Your task to perform on an android device: create a new album in the google photos Image 0: 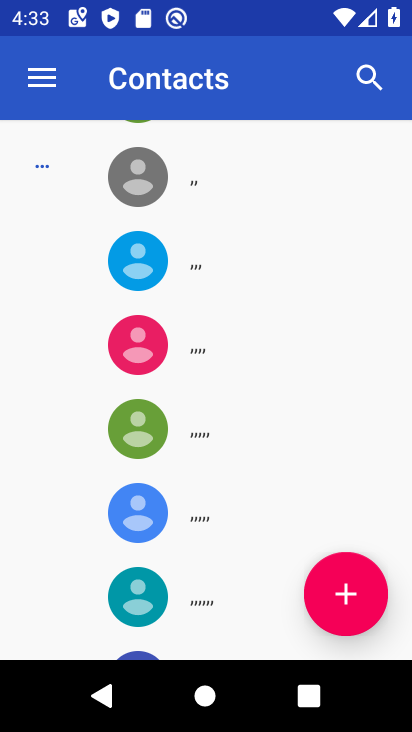
Step 0: drag from (202, 555) to (229, 231)
Your task to perform on an android device: create a new album in the google photos Image 1: 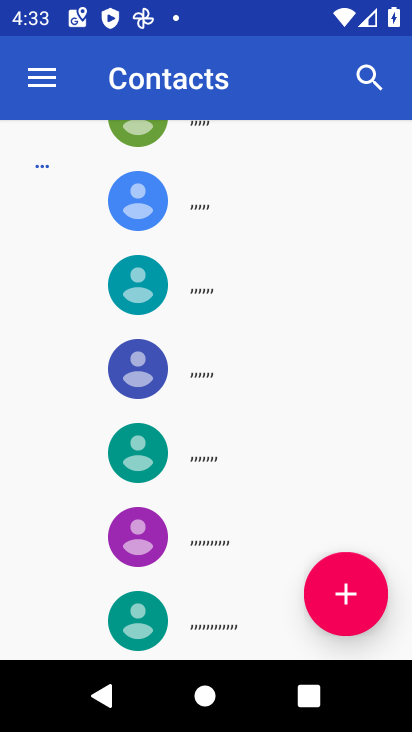
Step 1: drag from (218, 482) to (210, 610)
Your task to perform on an android device: create a new album in the google photos Image 2: 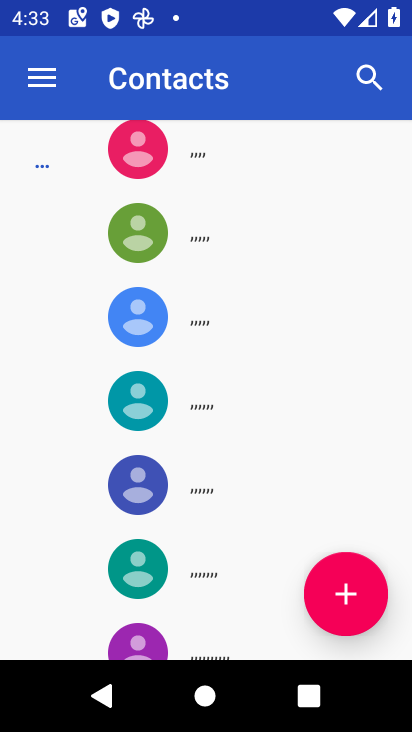
Step 2: drag from (185, 510) to (305, 222)
Your task to perform on an android device: create a new album in the google photos Image 3: 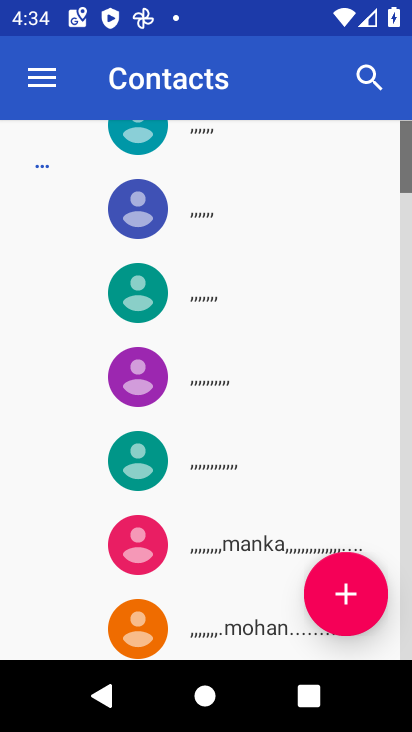
Step 3: drag from (325, 147) to (284, 718)
Your task to perform on an android device: create a new album in the google photos Image 4: 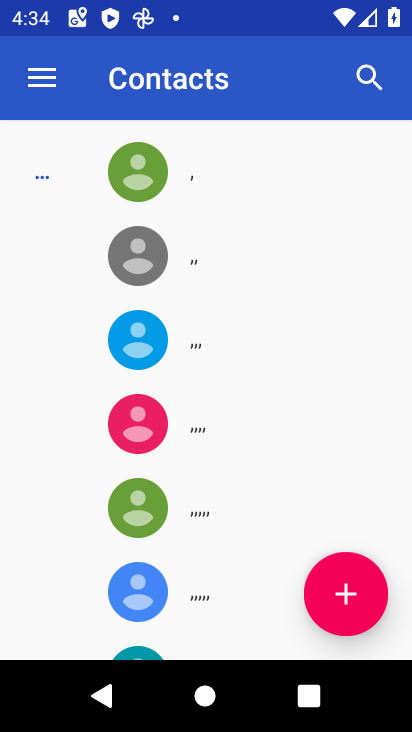
Step 4: drag from (244, 231) to (260, 554)
Your task to perform on an android device: create a new album in the google photos Image 5: 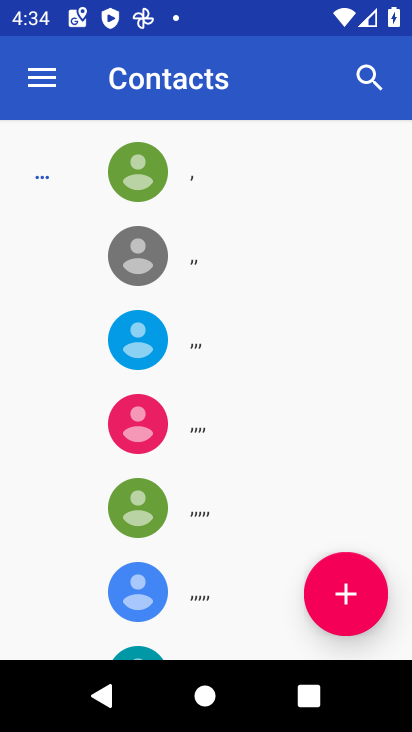
Step 5: drag from (247, 557) to (305, 140)
Your task to perform on an android device: create a new album in the google photos Image 6: 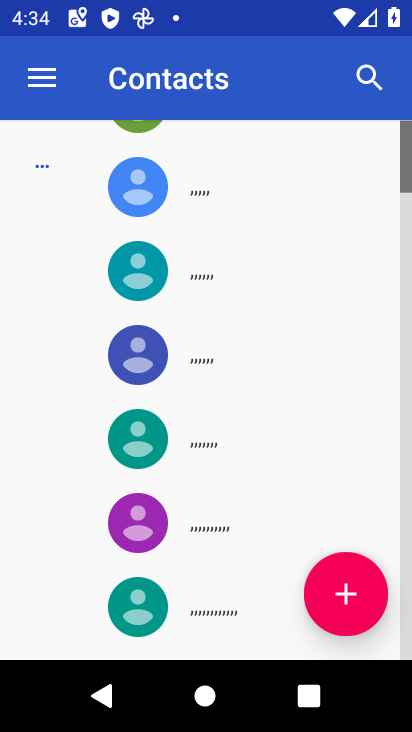
Step 6: drag from (263, 480) to (285, 162)
Your task to perform on an android device: create a new album in the google photos Image 7: 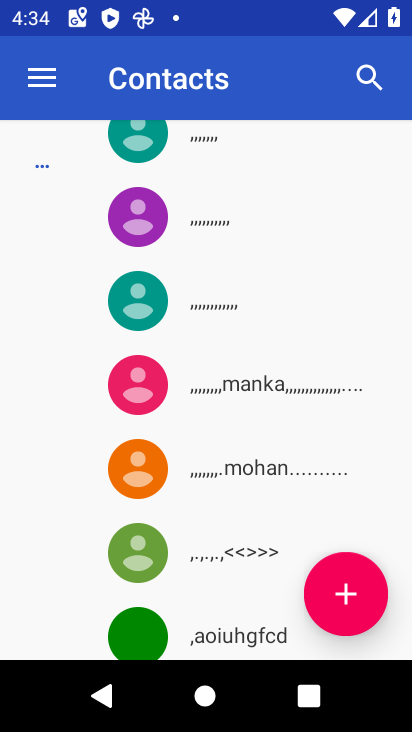
Step 7: drag from (195, 503) to (271, 216)
Your task to perform on an android device: create a new album in the google photos Image 8: 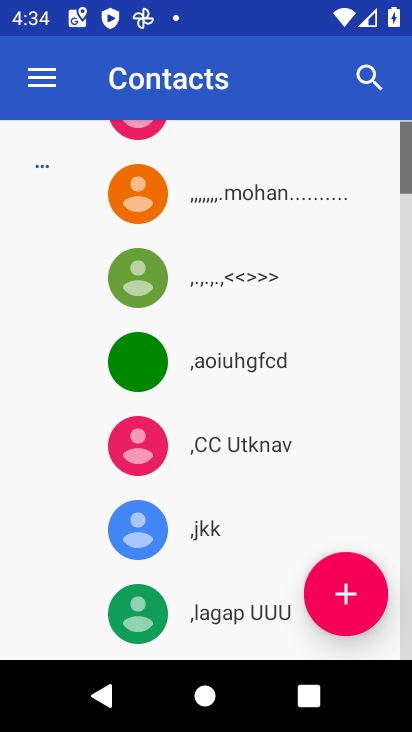
Step 8: drag from (272, 213) to (357, 712)
Your task to perform on an android device: create a new album in the google photos Image 9: 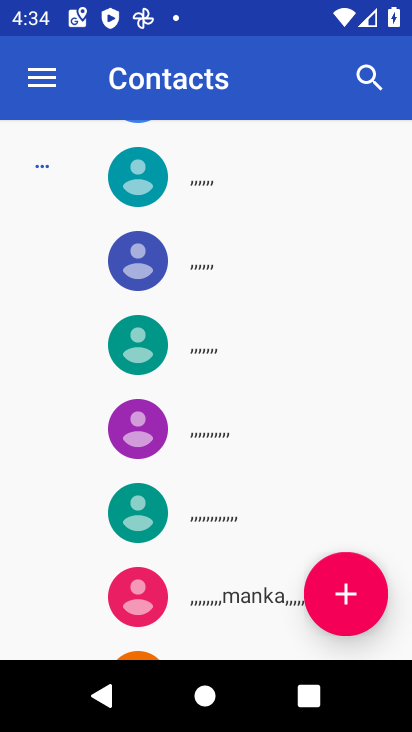
Step 9: drag from (190, 586) to (342, 33)
Your task to perform on an android device: create a new album in the google photos Image 10: 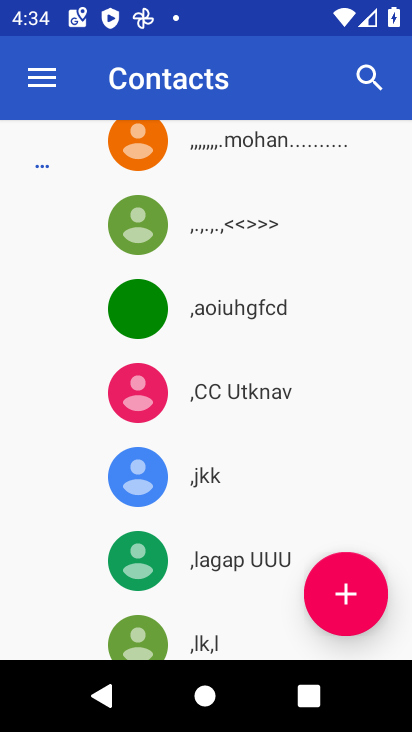
Step 10: drag from (216, 588) to (221, 149)
Your task to perform on an android device: create a new album in the google photos Image 11: 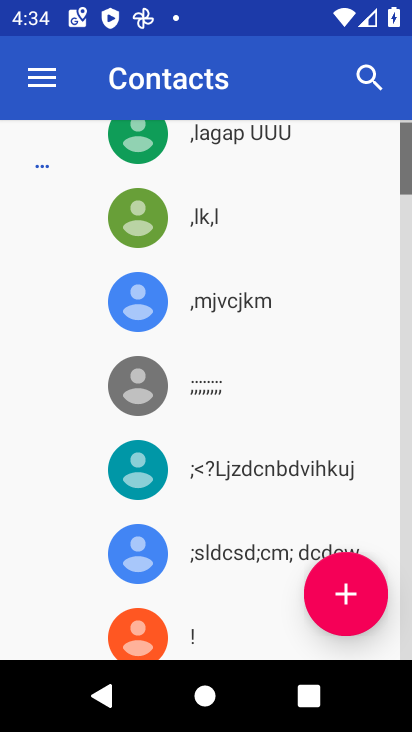
Step 11: drag from (226, 237) to (281, 708)
Your task to perform on an android device: create a new album in the google photos Image 12: 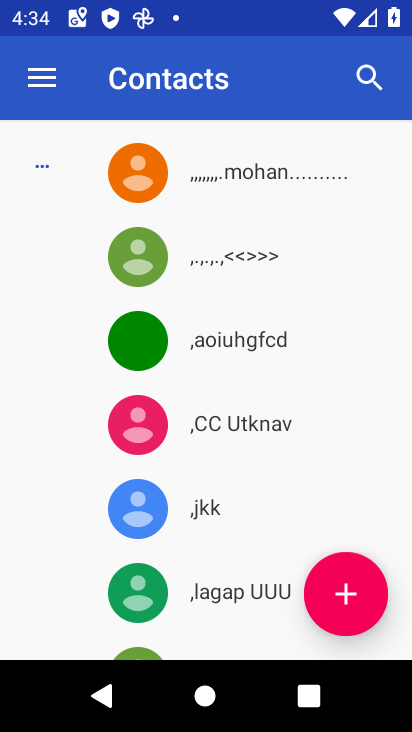
Step 12: click (355, 591)
Your task to perform on an android device: create a new album in the google photos Image 13: 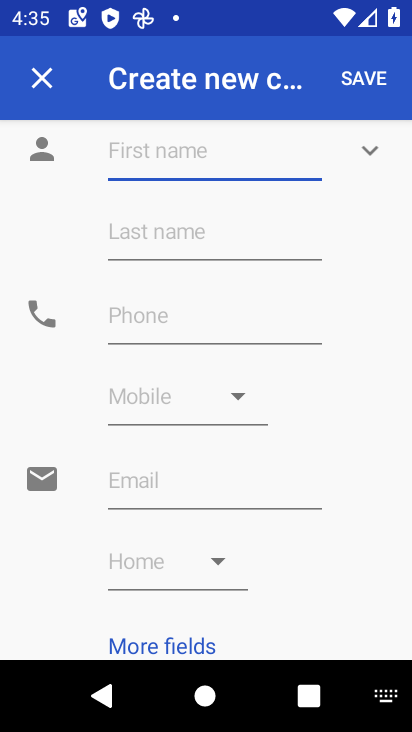
Step 13: drag from (201, 520) to (269, 183)
Your task to perform on an android device: create a new album in the google photos Image 14: 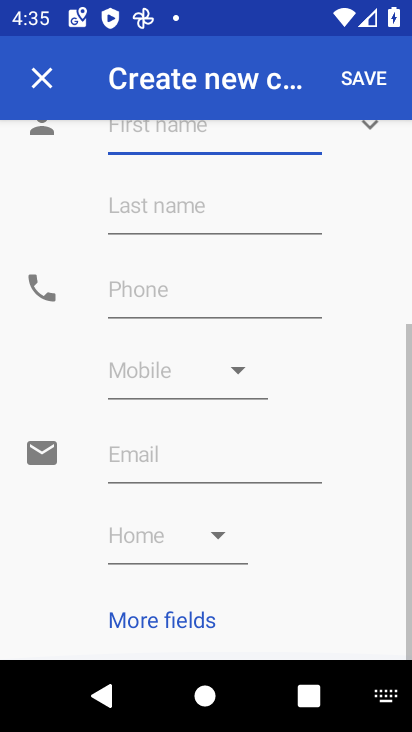
Step 14: drag from (212, 226) to (227, 633)
Your task to perform on an android device: create a new album in the google photos Image 15: 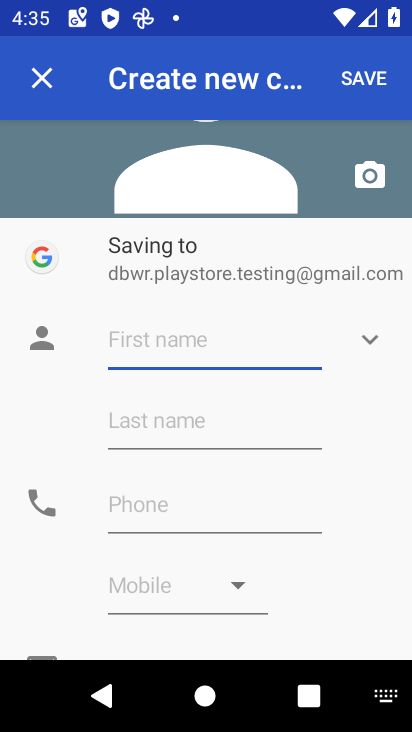
Step 15: type "majska"
Your task to perform on an android device: create a new album in the google photos Image 16: 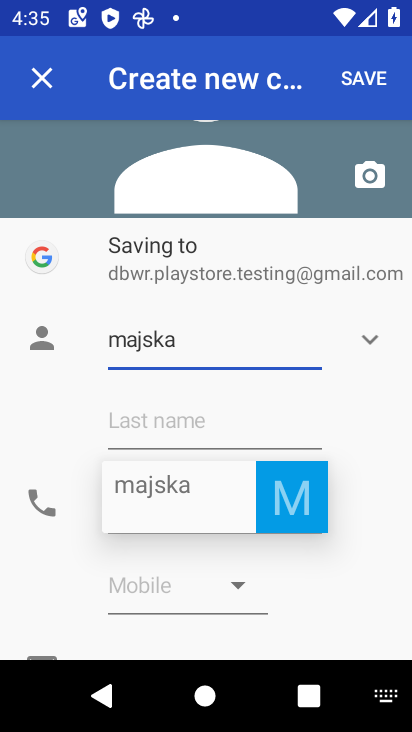
Step 16: click (380, 71)
Your task to perform on an android device: create a new album in the google photos Image 17: 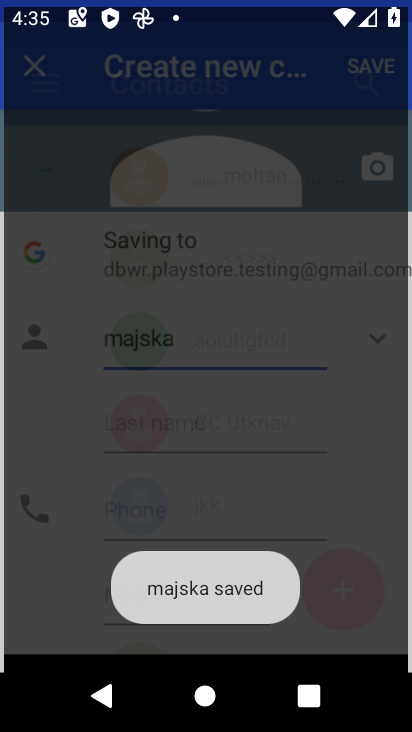
Step 17: task complete